Your task to perform on an android device: Go to battery settings Image 0: 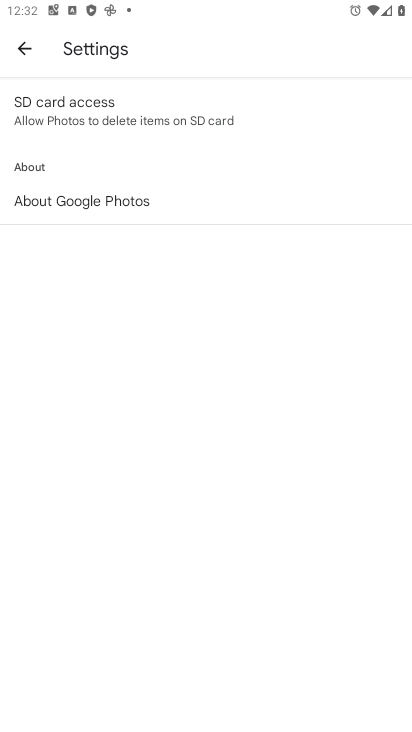
Step 0: press home button
Your task to perform on an android device: Go to battery settings Image 1: 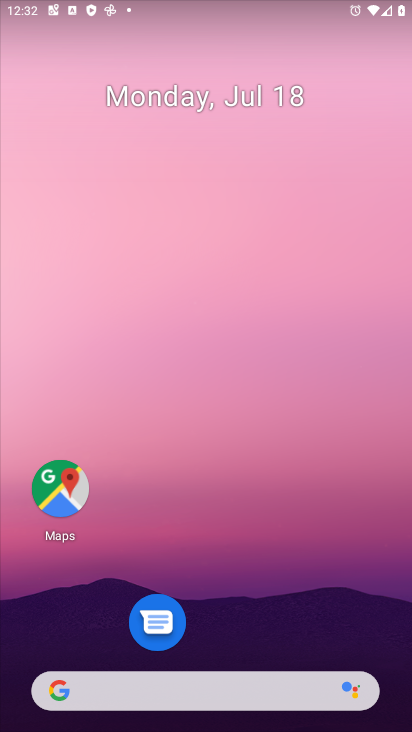
Step 1: drag from (203, 728) to (273, 37)
Your task to perform on an android device: Go to battery settings Image 2: 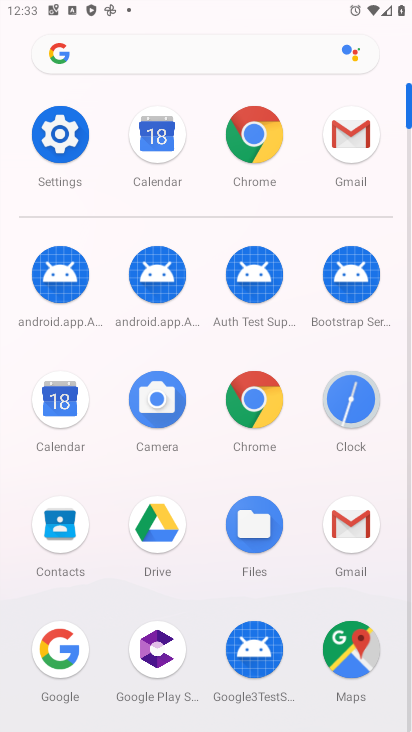
Step 2: click (66, 140)
Your task to perform on an android device: Go to battery settings Image 3: 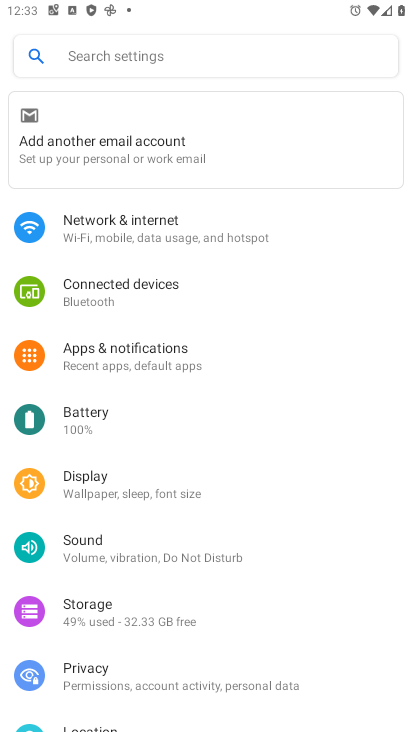
Step 3: click (144, 428)
Your task to perform on an android device: Go to battery settings Image 4: 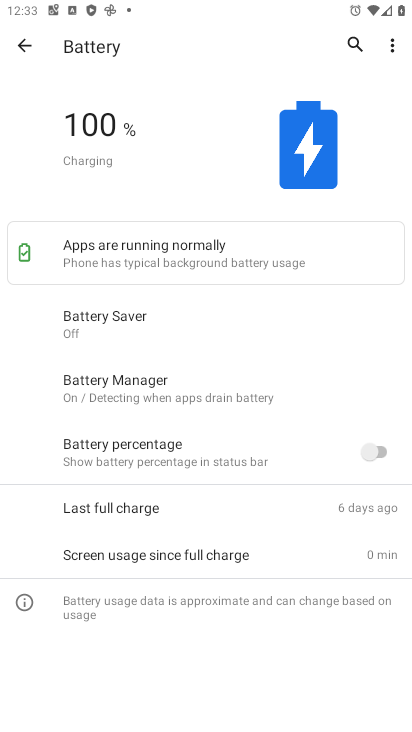
Step 4: task complete